Your task to perform on an android device: How do I get to the nearest Sprint Store? Image 0: 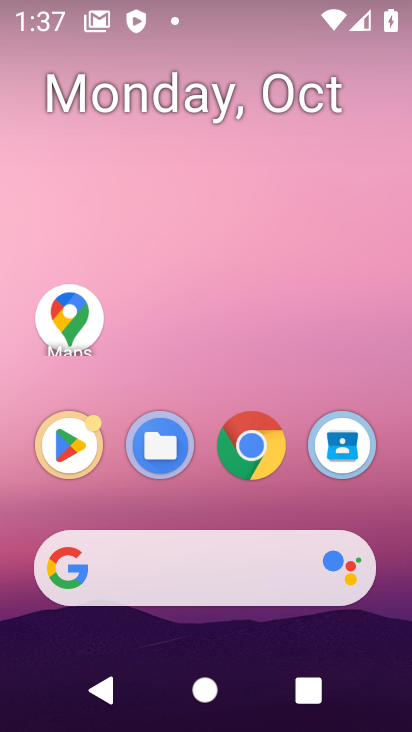
Step 0: click (162, 576)
Your task to perform on an android device: How do I get to the nearest Sprint Store? Image 1: 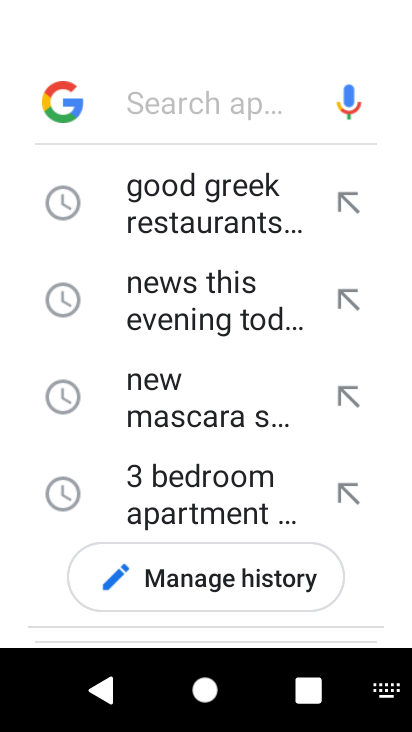
Step 1: type "get to the nearest Sprint Store"
Your task to perform on an android device: How do I get to the nearest Sprint Store? Image 2: 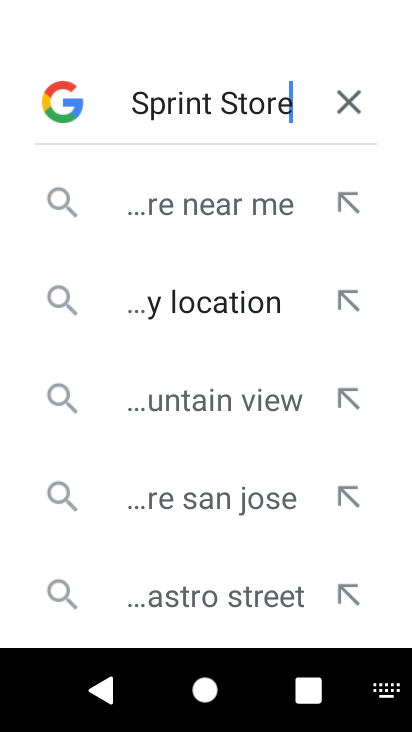
Step 2: type ""
Your task to perform on an android device: How do I get to the nearest Sprint Store? Image 3: 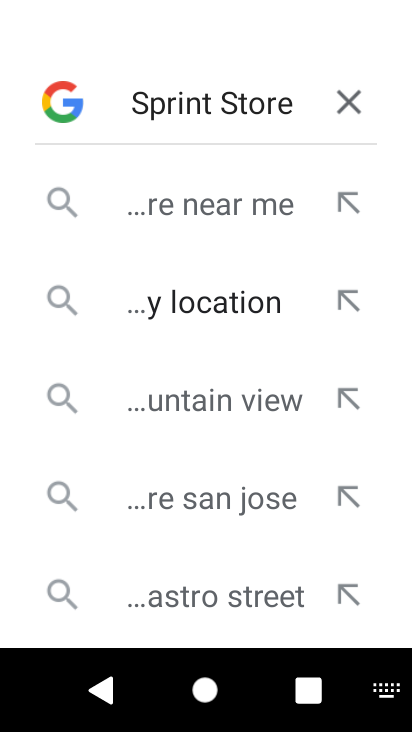
Step 3: click (249, 511)
Your task to perform on an android device: How do I get to the nearest Sprint Store? Image 4: 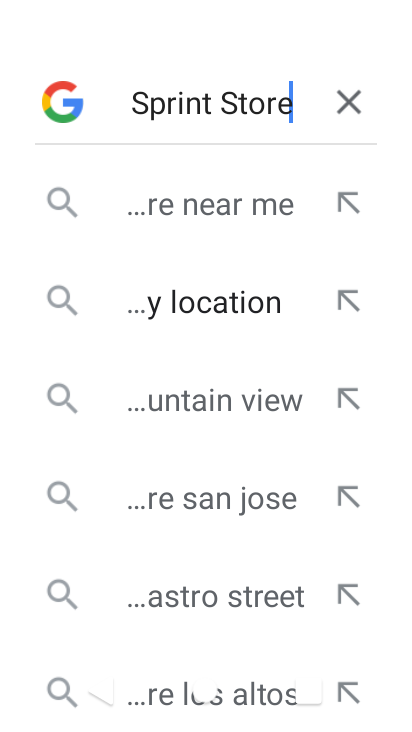
Step 4: drag from (205, 194) to (229, 359)
Your task to perform on an android device: How do I get to the nearest Sprint Store? Image 5: 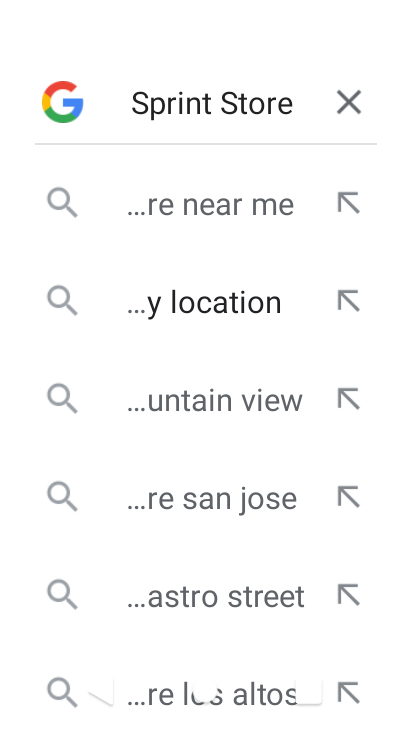
Step 5: click (224, 213)
Your task to perform on an android device: How do I get to the nearest Sprint Store? Image 6: 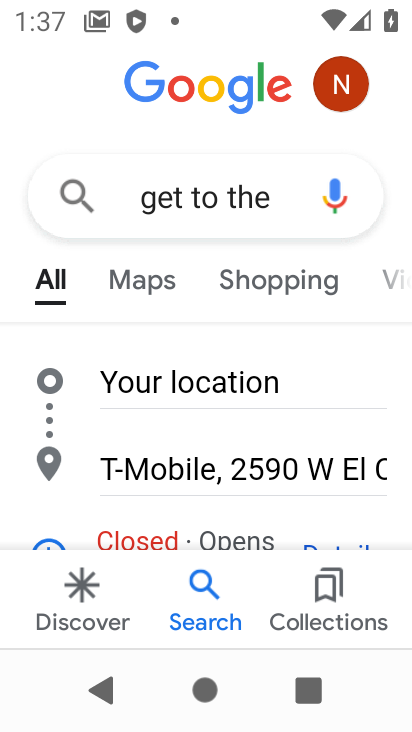
Step 6: task complete